Your task to perform on an android device: search for starred emails in the gmail app Image 0: 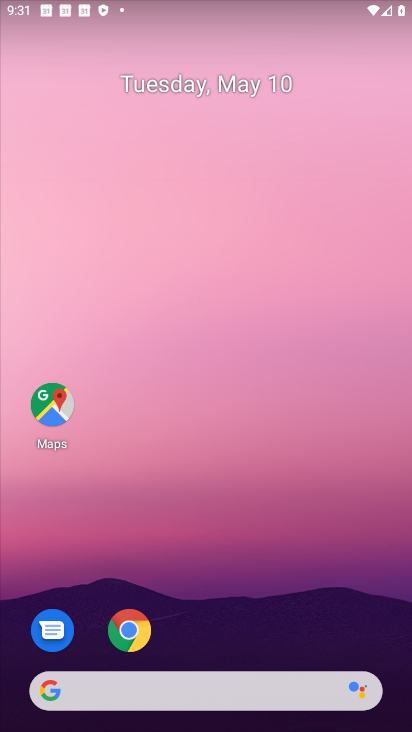
Step 0: drag from (173, 726) to (273, 170)
Your task to perform on an android device: search for starred emails in the gmail app Image 1: 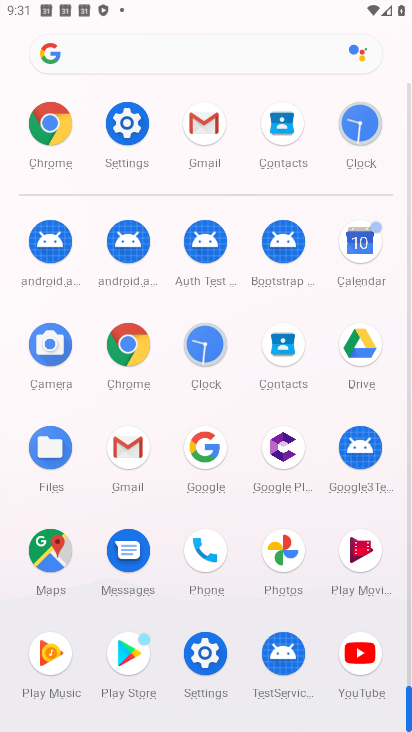
Step 1: click (200, 119)
Your task to perform on an android device: search for starred emails in the gmail app Image 2: 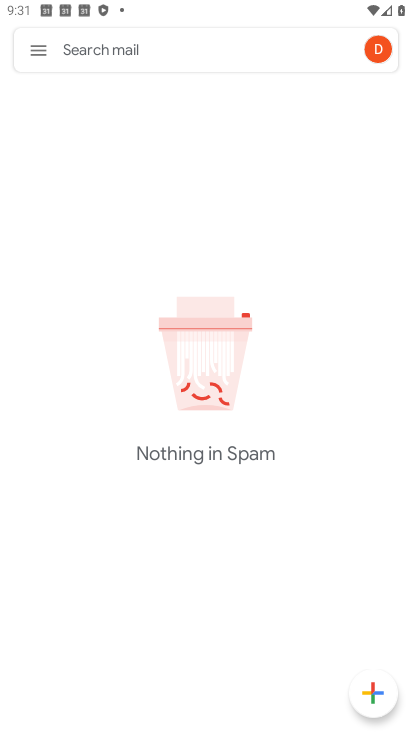
Step 2: click (39, 43)
Your task to perform on an android device: search for starred emails in the gmail app Image 3: 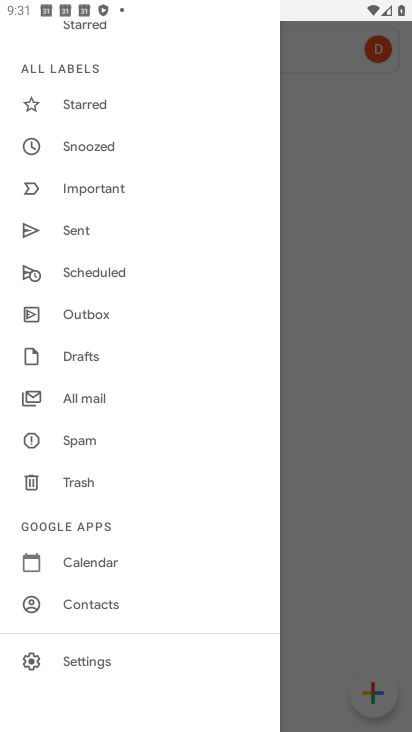
Step 3: click (117, 93)
Your task to perform on an android device: search for starred emails in the gmail app Image 4: 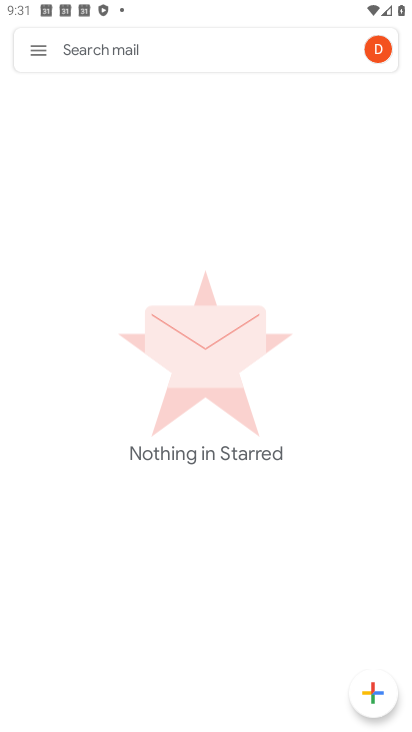
Step 4: task complete